Your task to perform on an android device: Open Amazon Image 0: 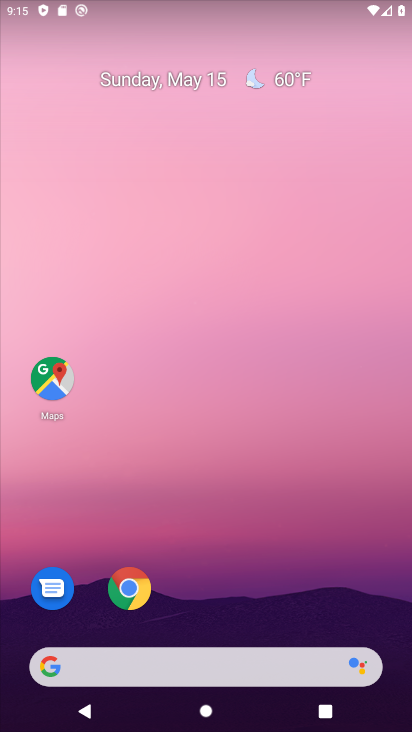
Step 0: click (139, 587)
Your task to perform on an android device: Open Amazon Image 1: 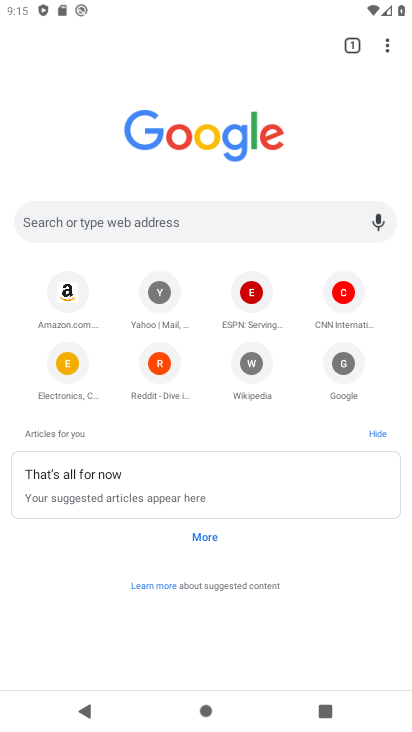
Step 1: click (73, 299)
Your task to perform on an android device: Open Amazon Image 2: 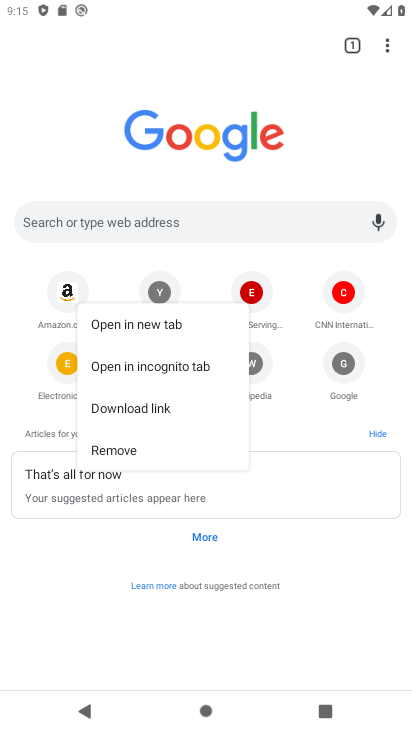
Step 2: click (62, 300)
Your task to perform on an android device: Open Amazon Image 3: 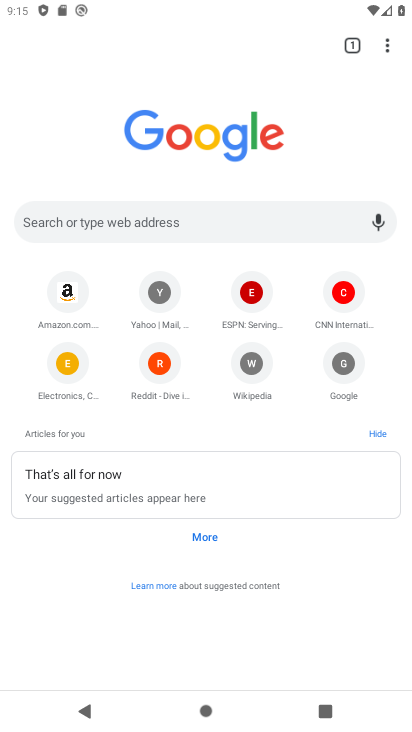
Step 3: click (64, 302)
Your task to perform on an android device: Open Amazon Image 4: 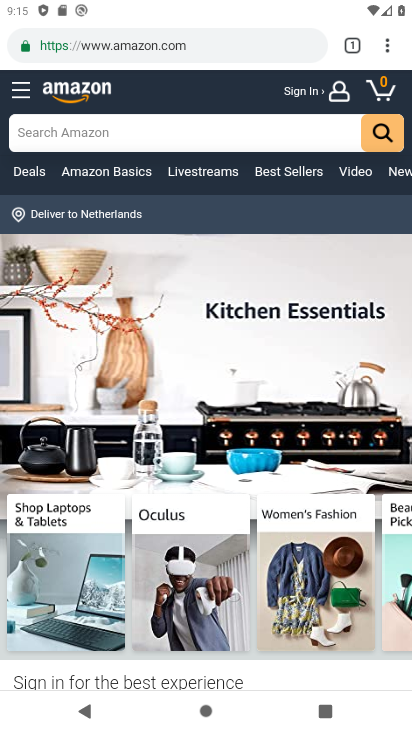
Step 4: task complete